Your task to perform on an android device: Open ESPN.com Image 0: 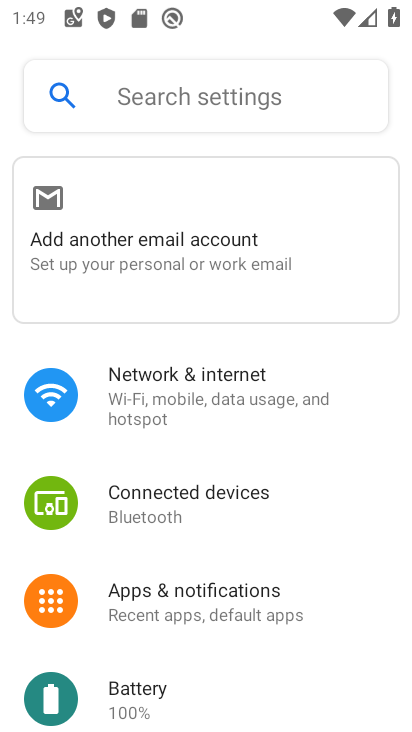
Step 0: press home button
Your task to perform on an android device: Open ESPN.com Image 1: 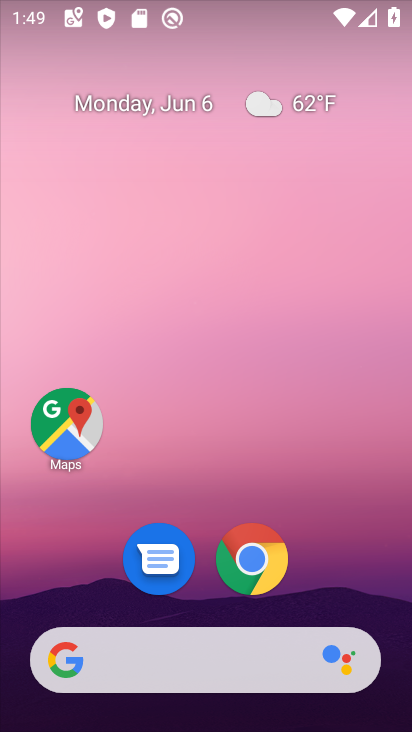
Step 1: click (260, 559)
Your task to perform on an android device: Open ESPN.com Image 2: 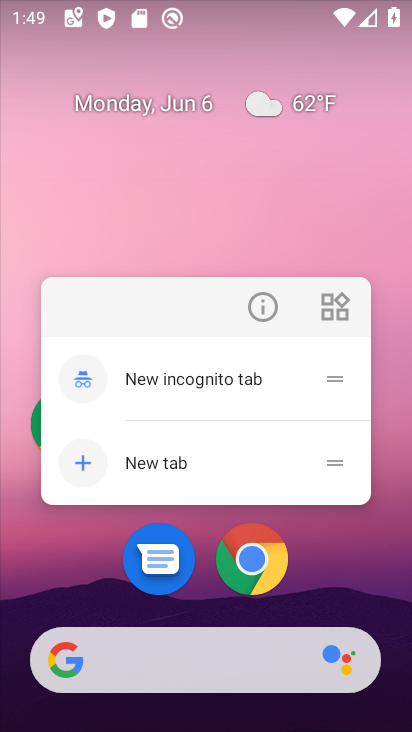
Step 2: click (252, 567)
Your task to perform on an android device: Open ESPN.com Image 3: 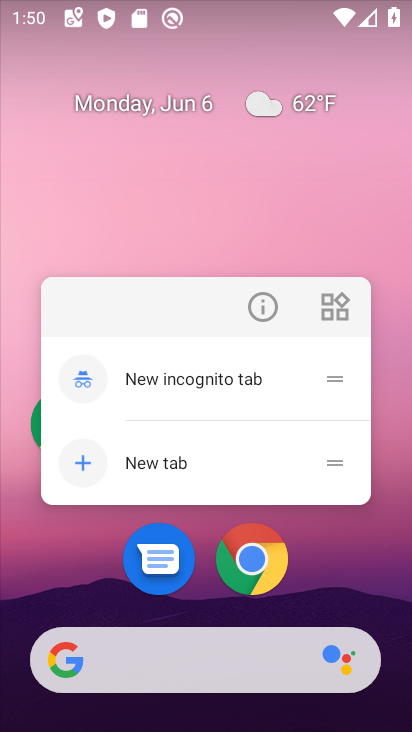
Step 3: click (234, 585)
Your task to perform on an android device: Open ESPN.com Image 4: 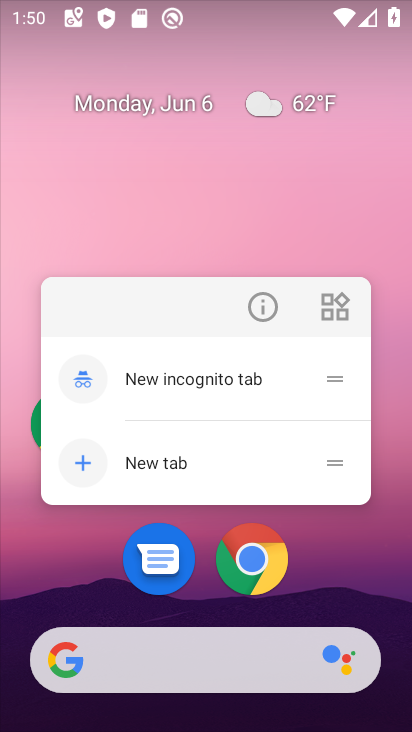
Step 4: click (243, 574)
Your task to perform on an android device: Open ESPN.com Image 5: 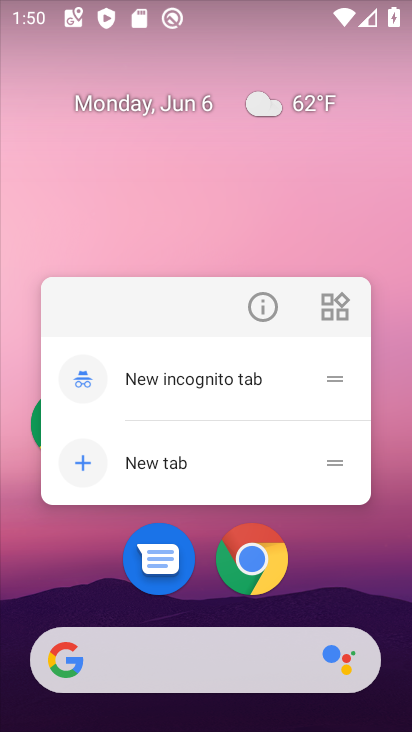
Step 5: click (251, 556)
Your task to perform on an android device: Open ESPN.com Image 6: 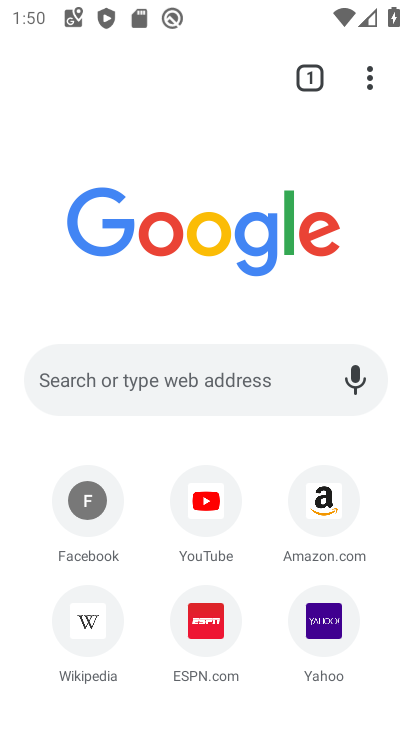
Step 6: click (187, 643)
Your task to perform on an android device: Open ESPN.com Image 7: 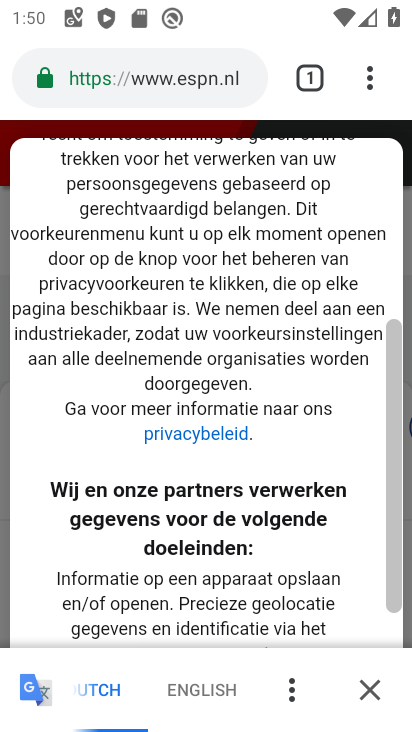
Step 7: click (376, 678)
Your task to perform on an android device: Open ESPN.com Image 8: 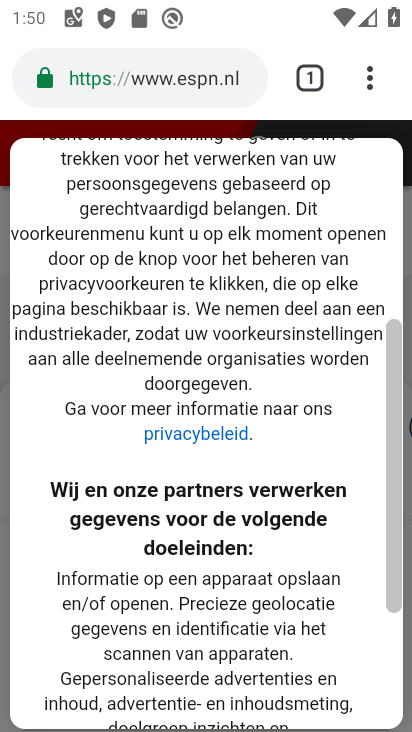
Step 8: drag from (217, 645) to (327, 254)
Your task to perform on an android device: Open ESPN.com Image 9: 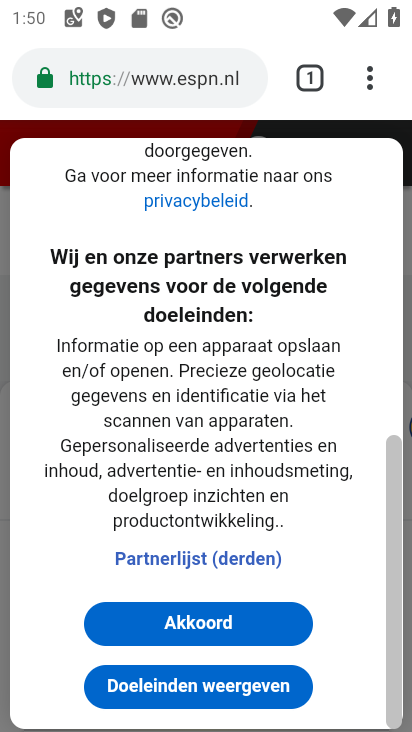
Step 9: click (227, 612)
Your task to perform on an android device: Open ESPN.com Image 10: 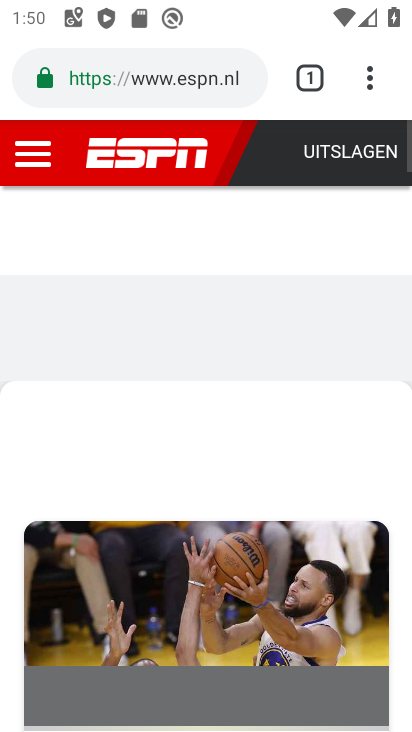
Step 10: task complete